Your task to perform on an android device: Open network settings Image 0: 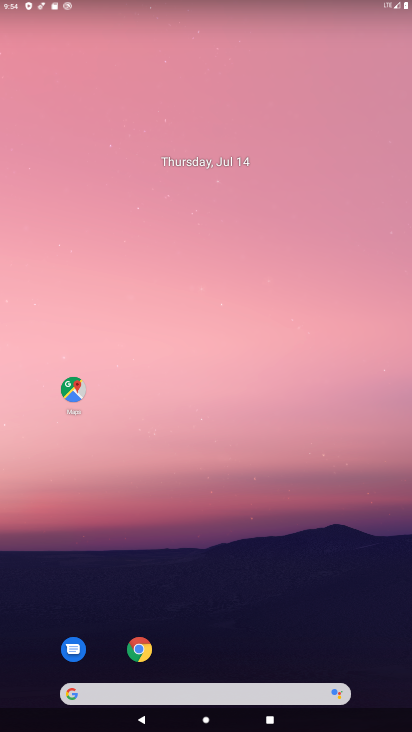
Step 0: drag from (201, 634) to (197, 223)
Your task to perform on an android device: Open network settings Image 1: 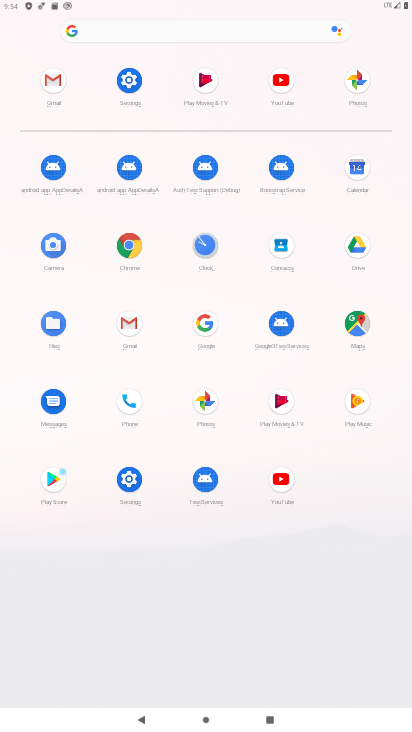
Step 1: click (135, 84)
Your task to perform on an android device: Open network settings Image 2: 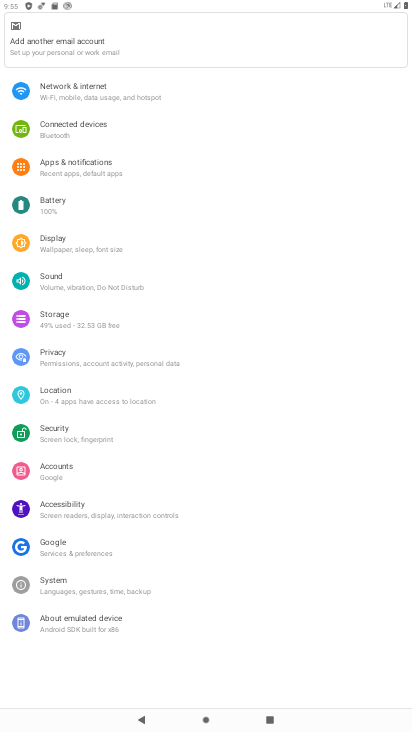
Step 2: click (135, 84)
Your task to perform on an android device: Open network settings Image 3: 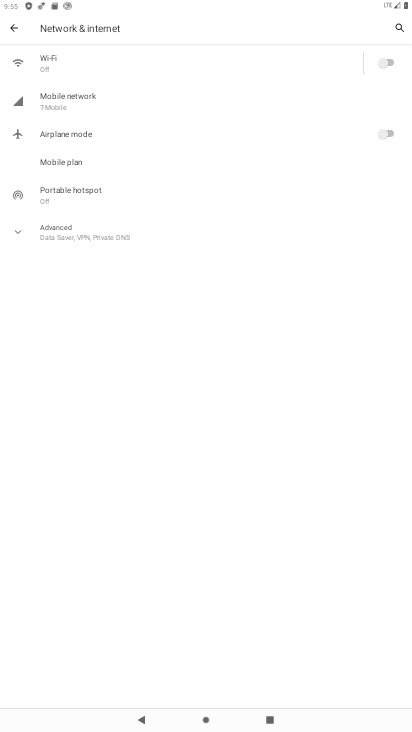
Step 3: task complete